Your task to perform on an android device: install app "Google Pay: Save, Pay, Manage" Image 0: 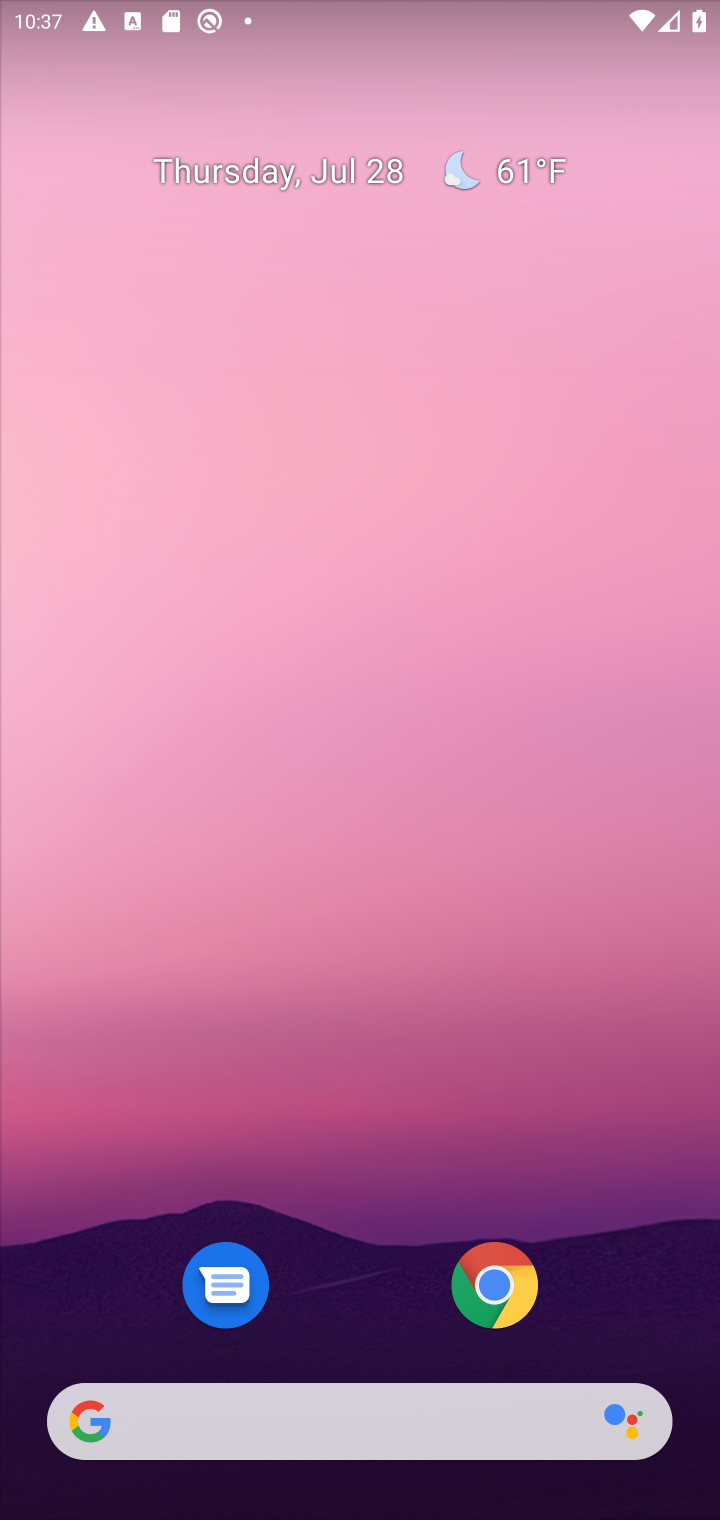
Step 0: drag from (317, 1434) to (349, 5)
Your task to perform on an android device: install app "Google Pay: Save, Pay, Manage" Image 1: 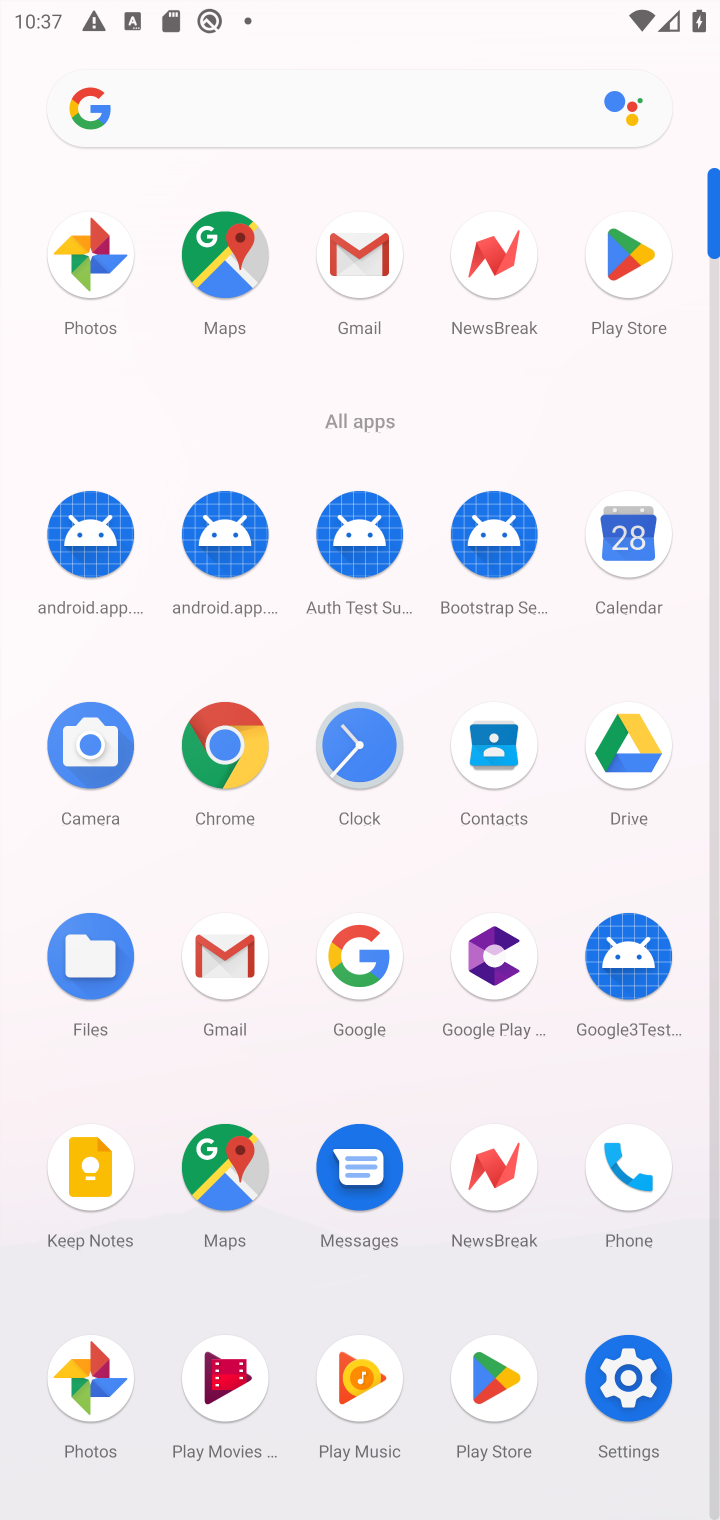
Step 1: click (625, 252)
Your task to perform on an android device: install app "Google Pay: Save, Pay, Manage" Image 2: 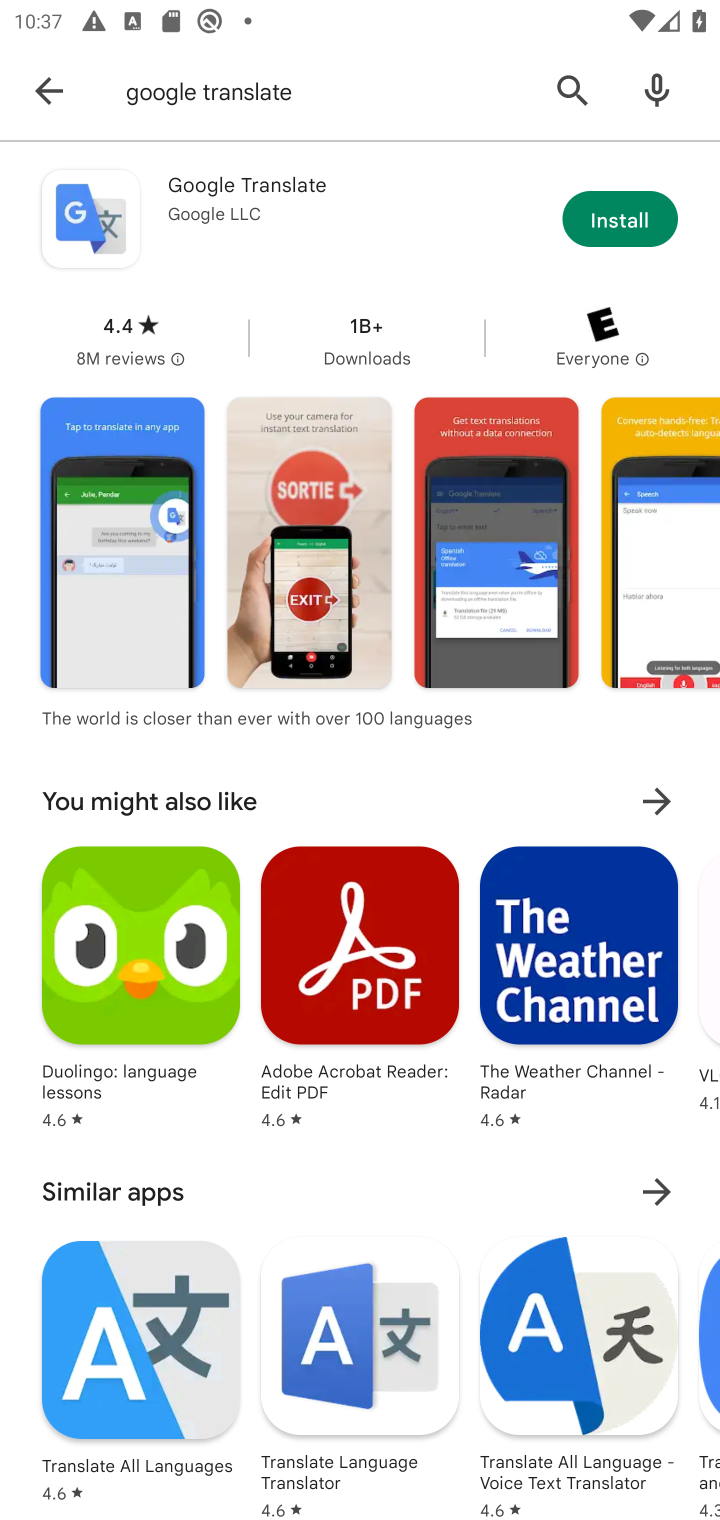
Step 2: click (572, 92)
Your task to perform on an android device: install app "Google Pay: Save, Pay, Manage" Image 3: 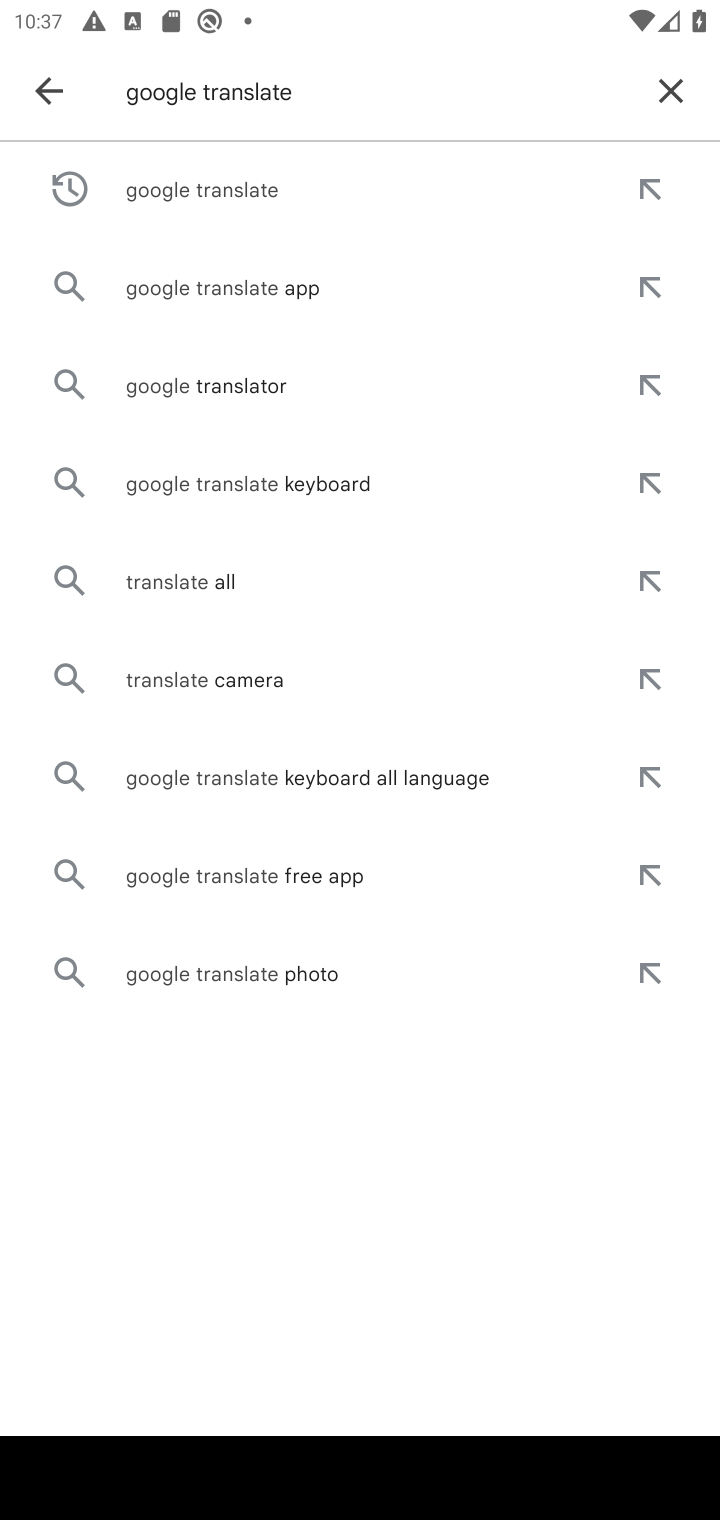
Step 3: click (675, 86)
Your task to perform on an android device: install app "Google Pay: Save, Pay, Manage" Image 4: 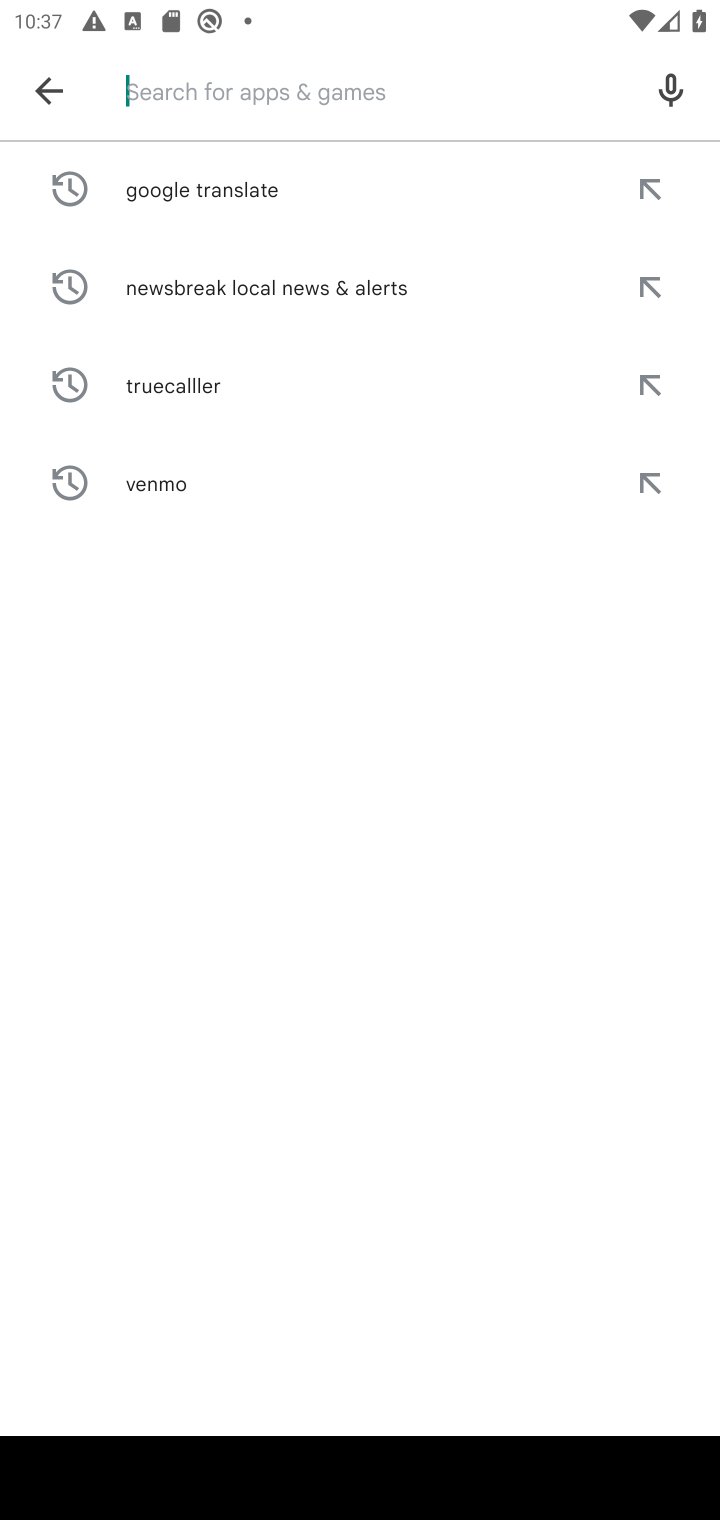
Step 4: click (229, 93)
Your task to perform on an android device: install app "Google Pay: Save, Pay, Manage" Image 5: 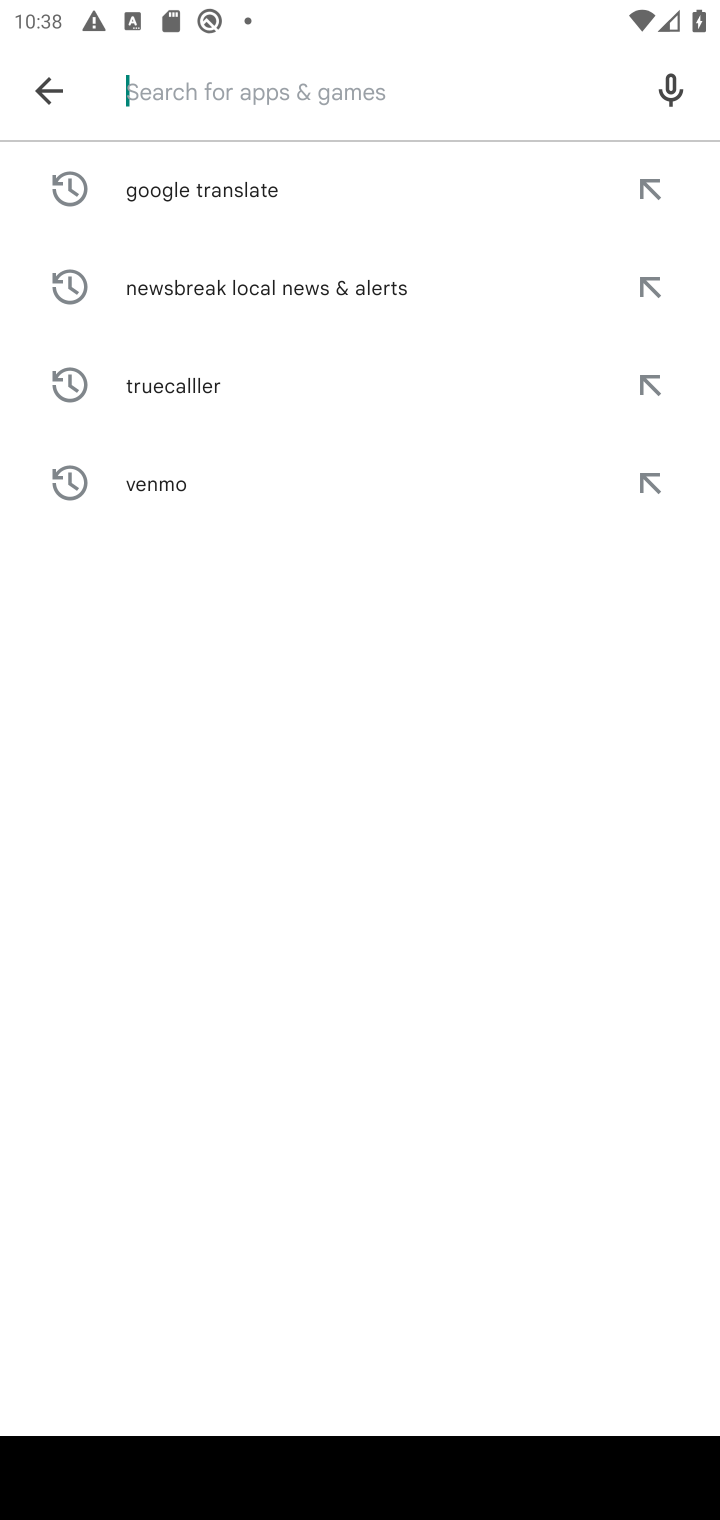
Step 5: type "Google Pay: Save, Pay, Manage"
Your task to perform on an android device: install app "Google Pay: Save, Pay, Manage" Image 6: 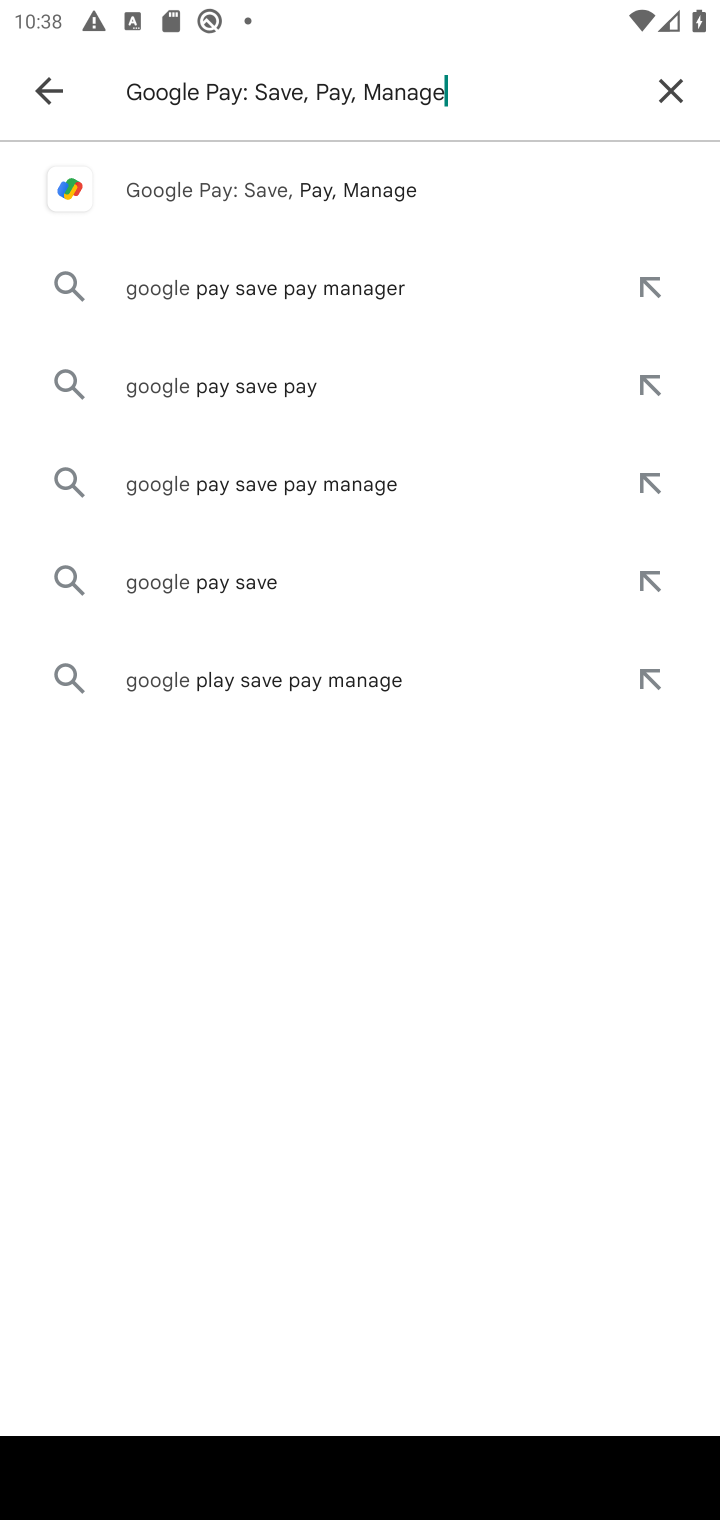
Step 6: type ""
Your task to perform on an android device: install app "Google Pay: Save, Pay, Manage" Image 7: 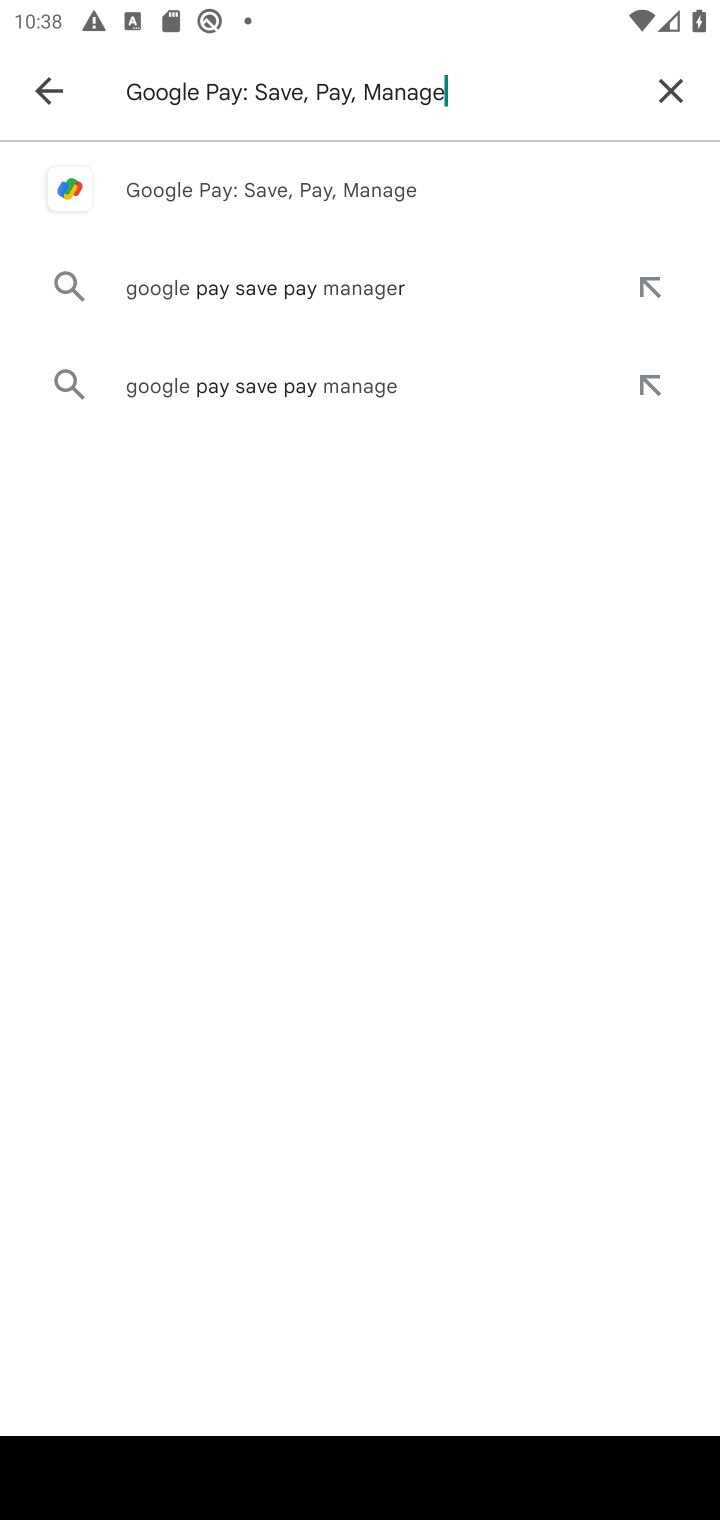
Step 7: click (257, 204)
Your task to perform on an android device: install app "Google Pay: Save, Pay, Manage" Image 8: 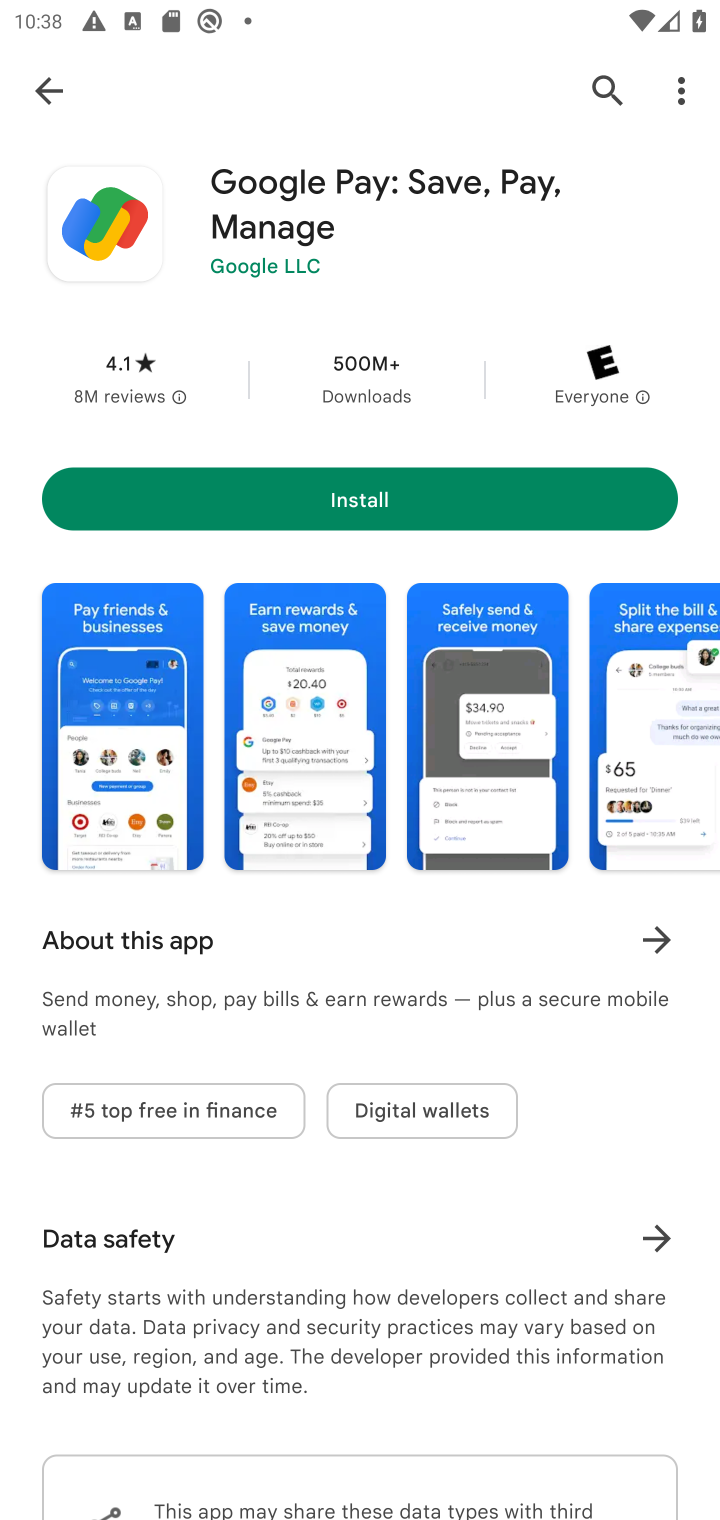
Step 8: click (344, 504)
Your task to perform on an android device: install app "Google Pay: Save, Pay, Manage" Image 9: 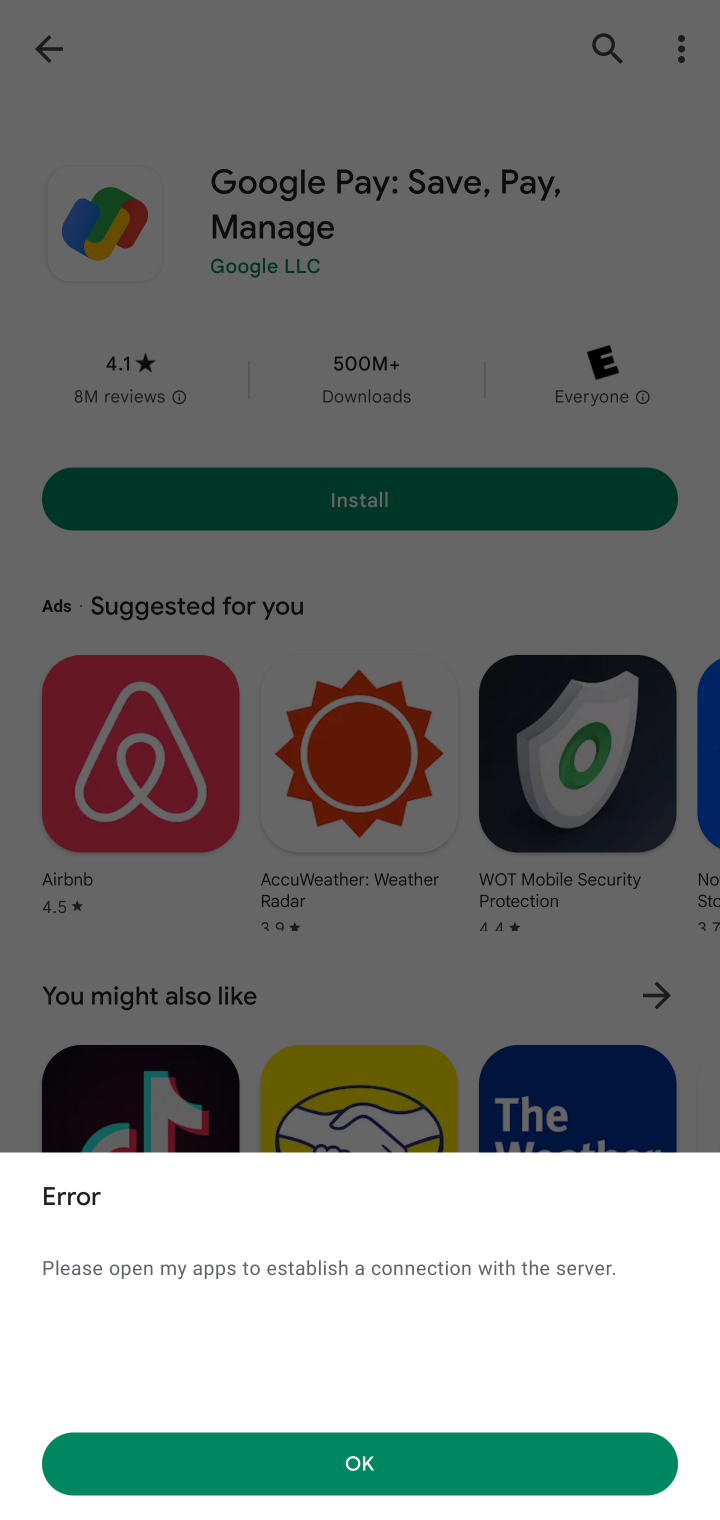
Step 9: click (398, 1462)
Your task to perform on an android device: install app "Google Pay: Save, Pay, Manage" Image 10: 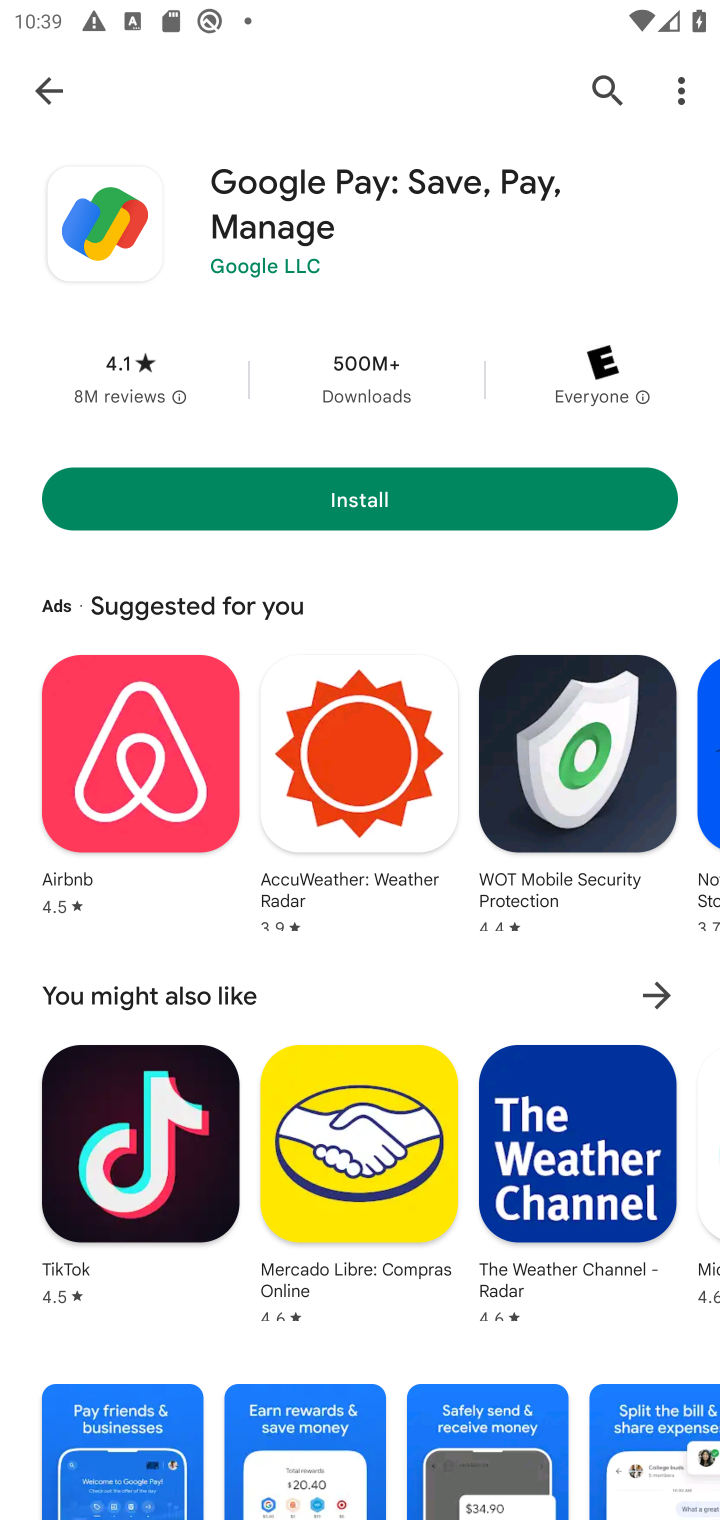
Step 10: task complete